Your task to perform on an android device: delete browsing data in the chrome app Image 0: 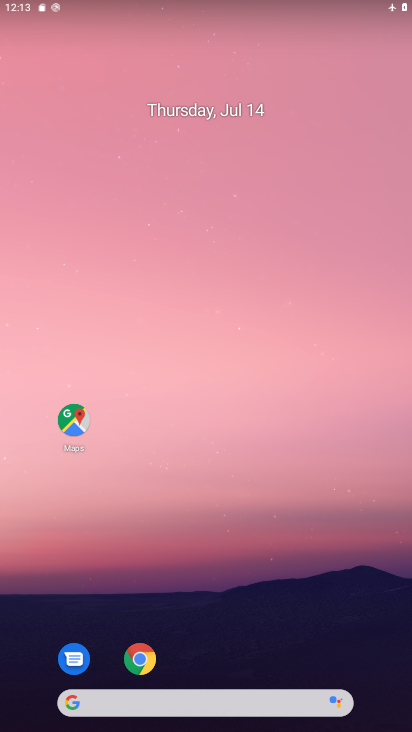
Step 0: drag from (216, 616) to (221, 109)
Your task to perform on an android device: delete browsing data in the chrome app Image 1: 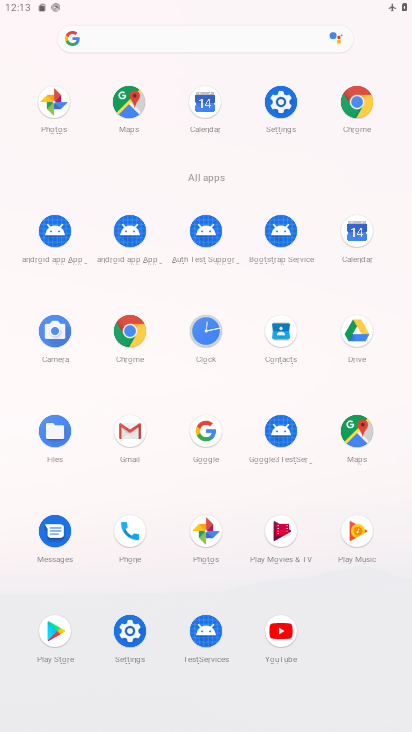
Step 1: click (130, 325)
Your task to perform on an android device: delete browsing data in the chrome app Image 2: 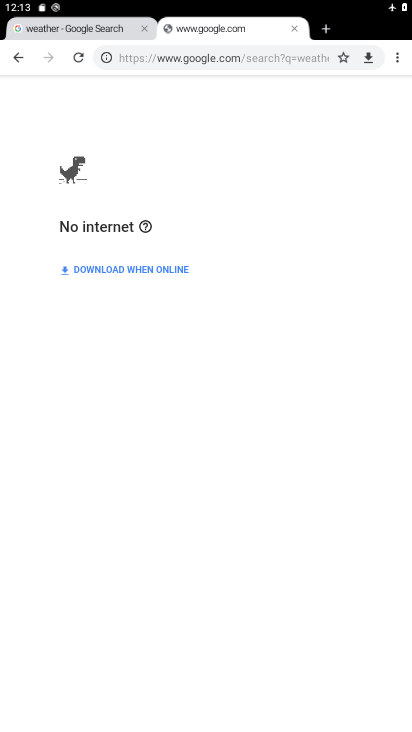
Step 2: drag from (400, 54) to (306, 219)
Your task to perform on an android device: delete browsing data in the chrome app Image 3: 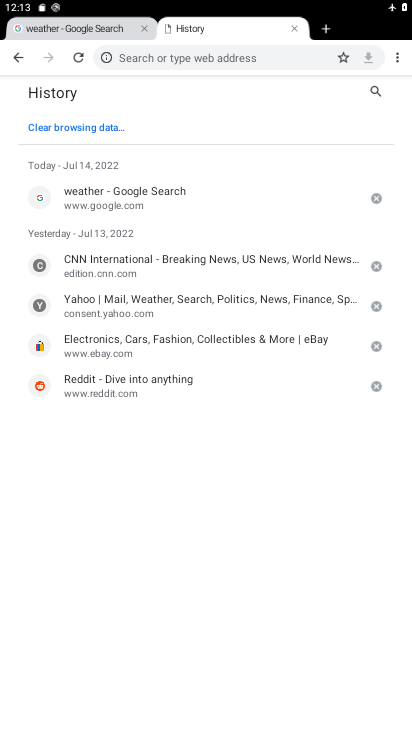
Step 3: click (66, 121)
Your task to perform on an android device: delete browsing data in the chrome app Image 4: 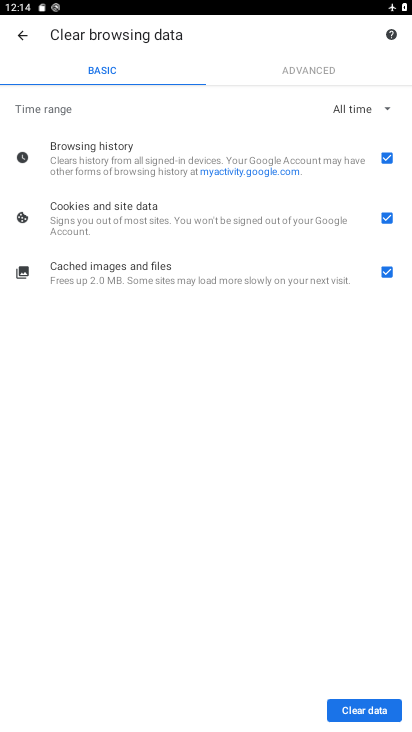
Step 4: click (382, 706)
Your task to perform on an android device: delete browsing data in the chrome app Image 5: 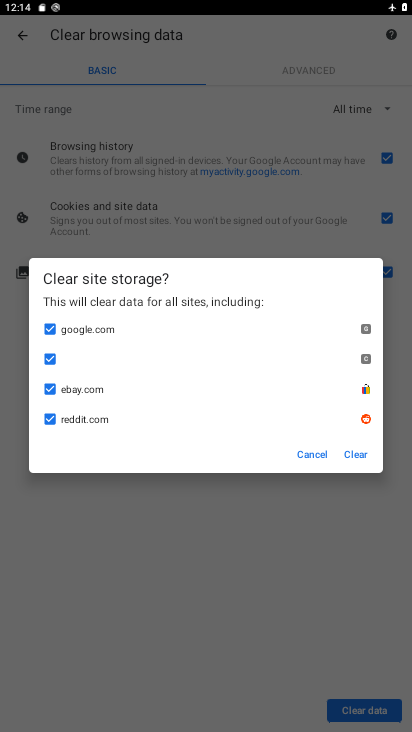
Step 5: click (363, 456)
Your task to perform on an android device: delete browsing data in the chrome app Image 6: 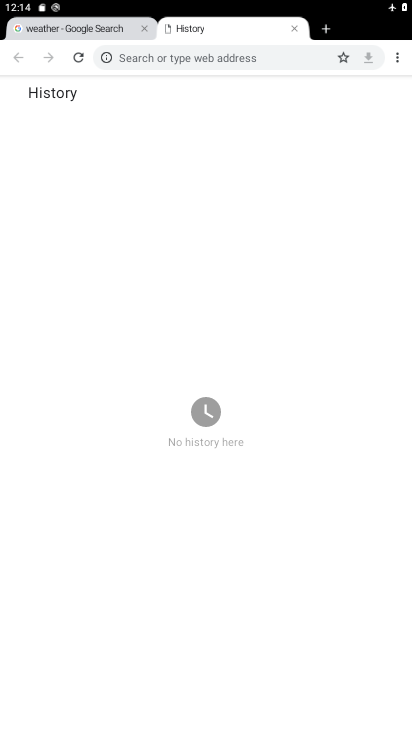
Step 6: task complete